Your task to perform on an android device: Open settings on Google Maps Image 0: 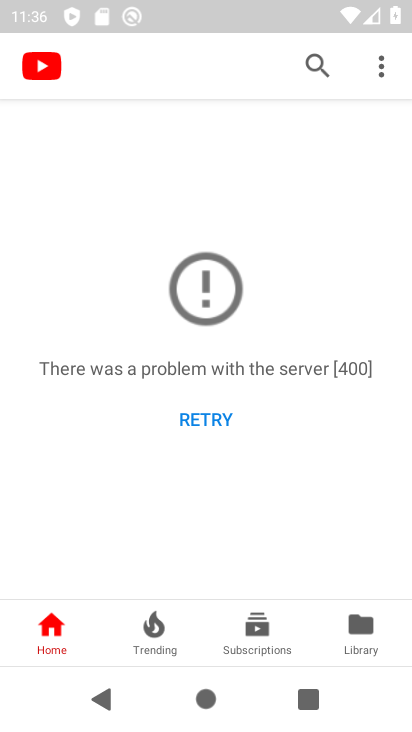
Step 0: press home button
Your task to perform on an android device: Open settings on Google Maps Image 1: 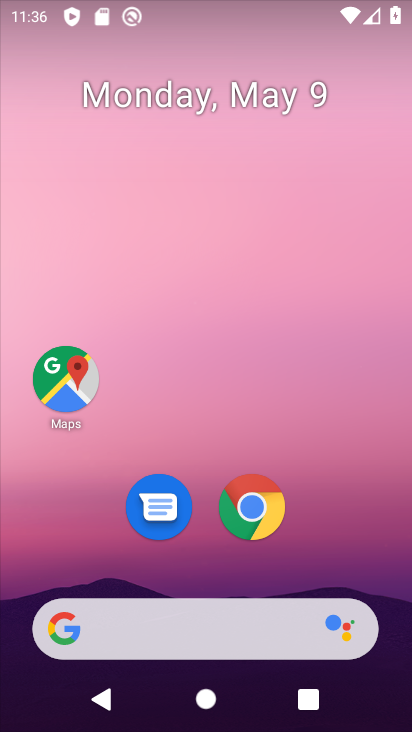
Step 1: drag from (279, 382) to (222, 6)
Your task to perform on an android device: Open settings on Google Maps Image 2: 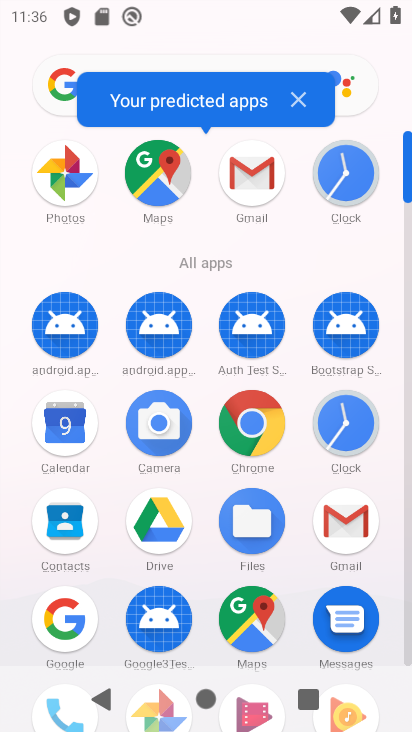
Step 2: click (257, 617)
Your task to perform on an android device: Open settings on Google Maps Image 3: 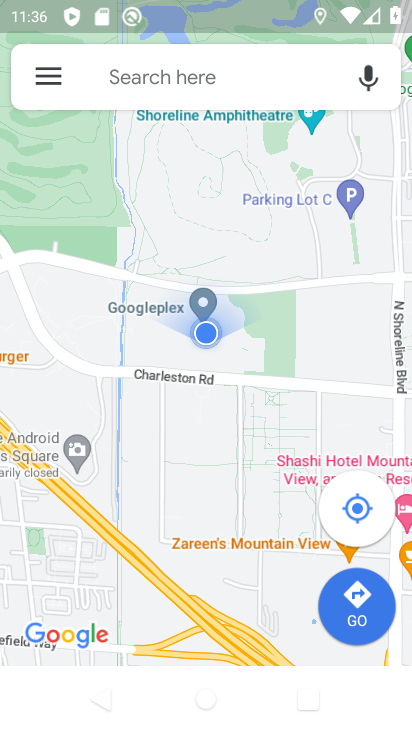
Step 3: click (63, 76)
Your task to perform on an android device: Open settings on Google Maps Image 4: 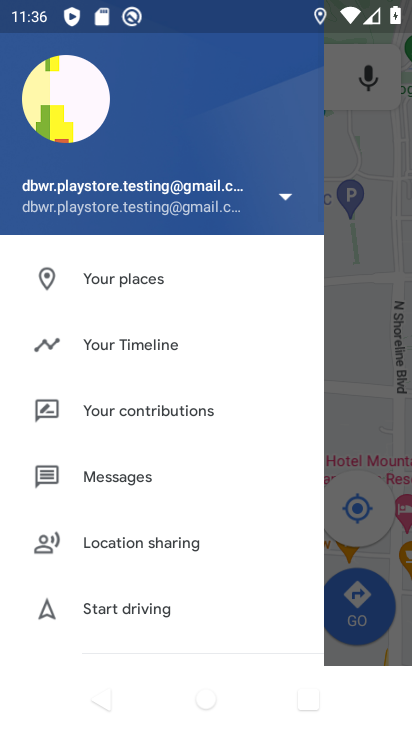
Step 4: drag from (180, 573) to (177, 114)
Your task to perform on an android device: Open settings on Google Maps Image 5: 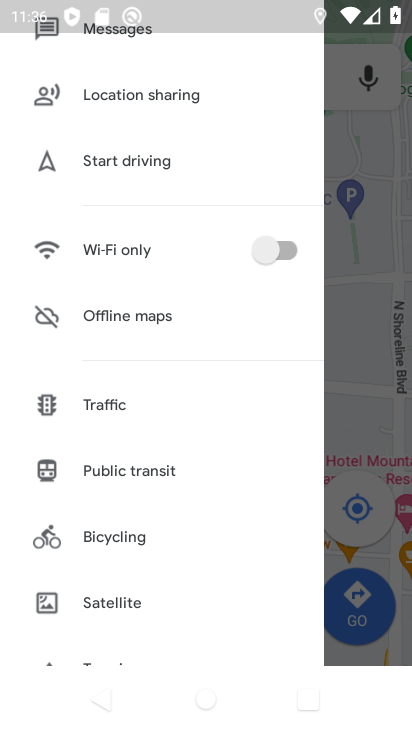
Step 5: drag from (145, 566) to (148, 178)
Your task to perform on an android device: Open settings on Google Maps Image 6: 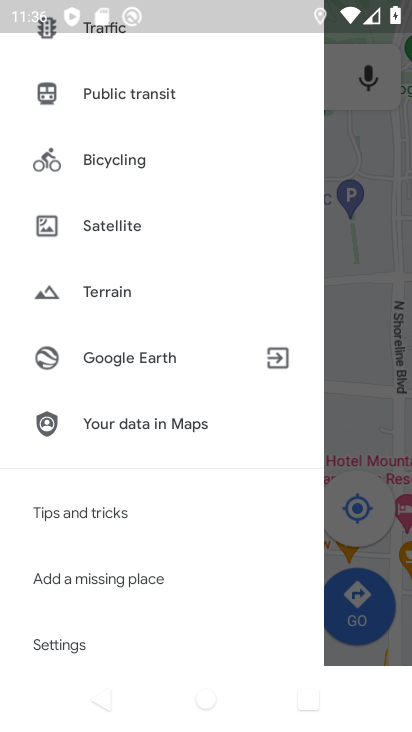
Step 6: click (91, 637)
Your task to perform on an android device: Open settings on Google Maps Image 7: 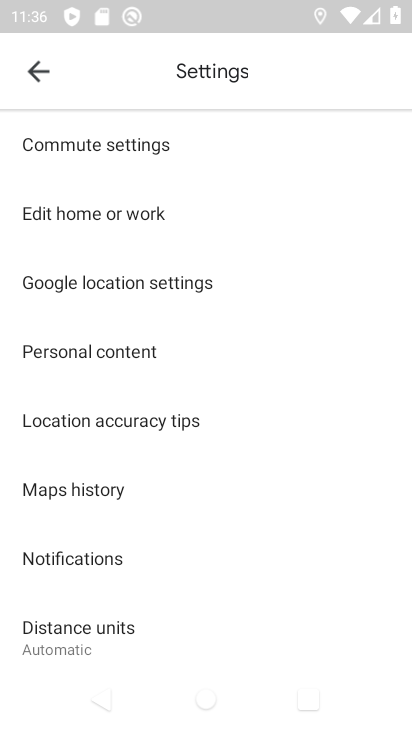
Step 7: task complete